Your task to perform on an android device: turn off notifications settings in the gmail app Image 0: 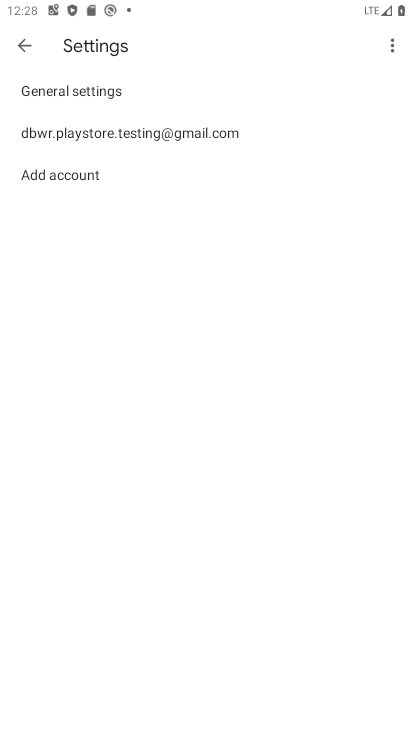
Step 0: press home button
Your task to perform on an android device: turn off notifications settings in the gmail app Image 1: 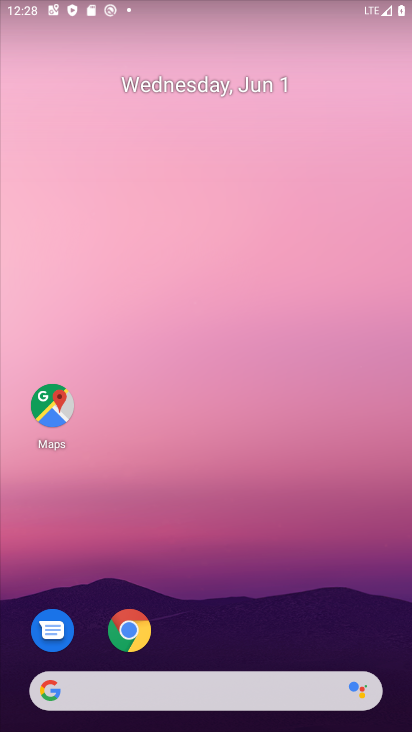
Step 1: click (305, 188)
Your task to perform on an android device: turn off notifications settings in the gmail app Image 2: 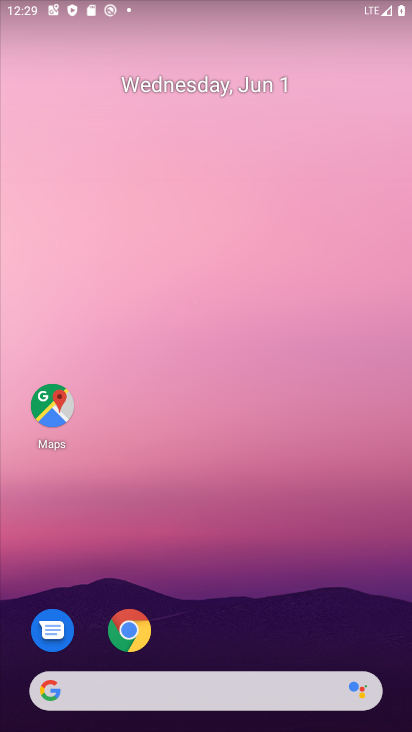
Step 2: drag from (330, 615) to (382, 162)
Your task to perform on an android device: turn off notifications settings in the gmail app Image 3: 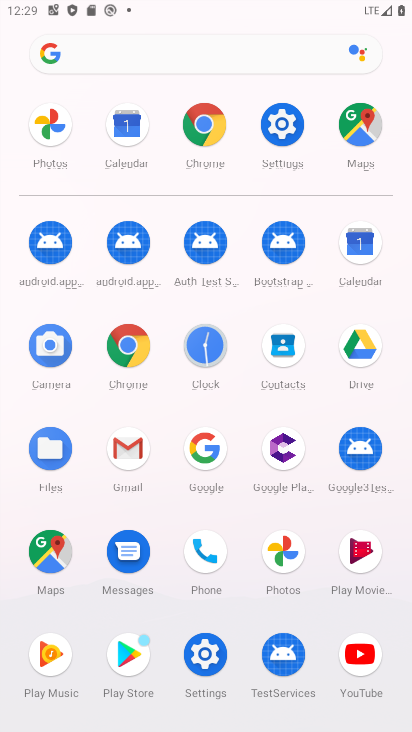
Step 3: click (131, 444)
Your task to perform on an android device: turn off notifications settings in the gmail app Image 4: 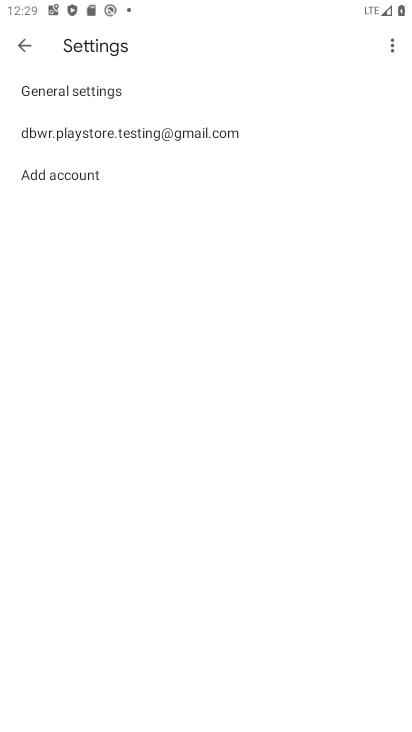
Step 4: click (109, 130)
Your task to perform on an android device: turn off notifications settings in the gmail app Image 5: 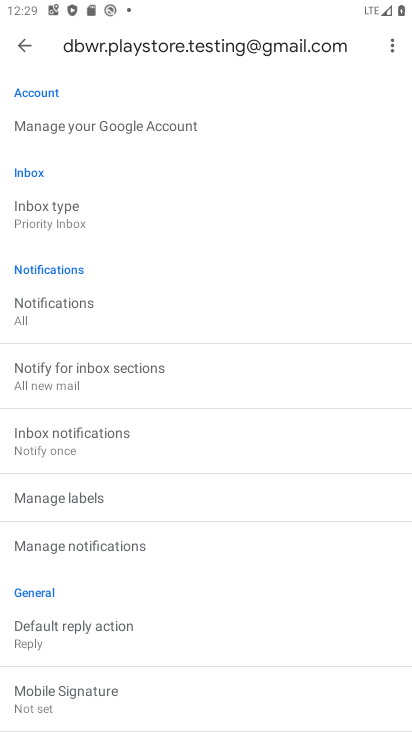
Step 5: click (159, 551)
Your task to perform on an android device: turn off notifications settings in the gmail app Image 6: 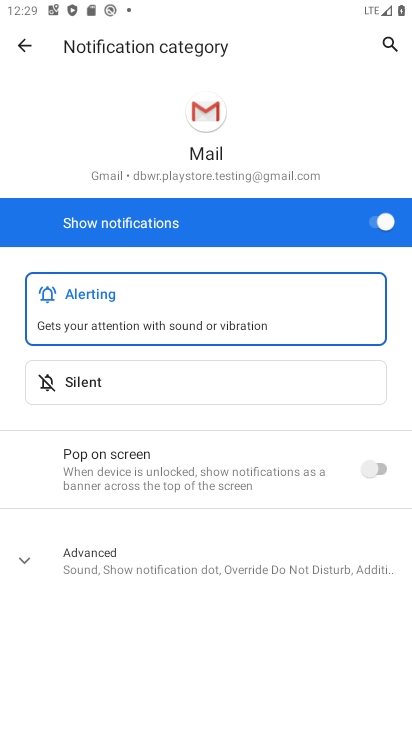
Step 6: click (373, 222)
Your task to perform on an android device: turn off notifications settings in the gmail app Image 7: 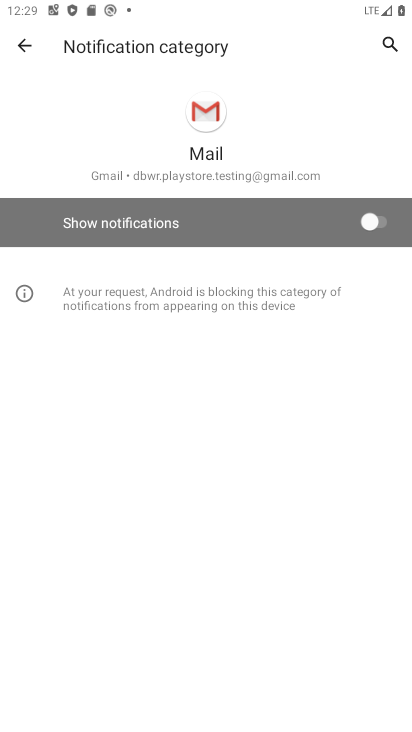
Step 7: task complete